Your task to perform on an android device: set default search engine in the chrome app Image 0: 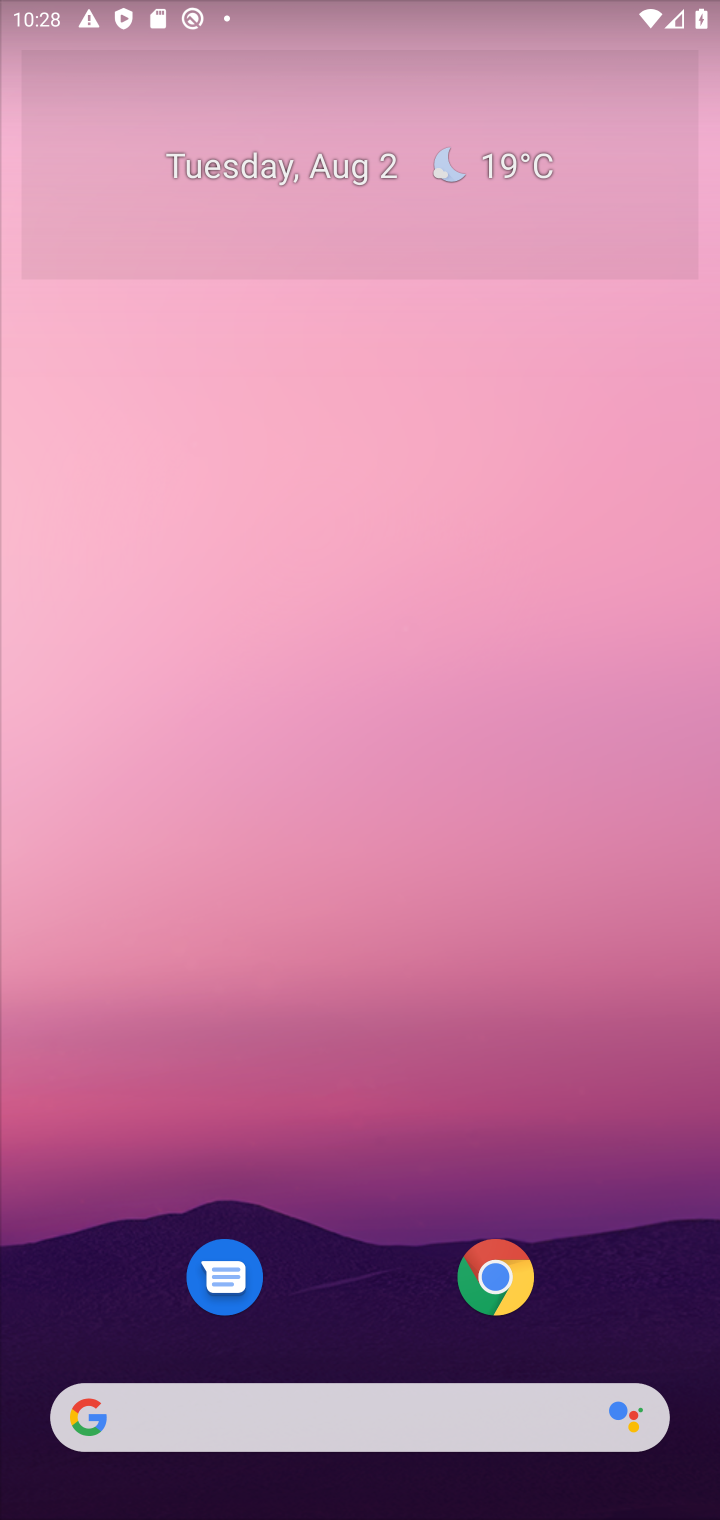
Step 0: press home button
Your task to perform on an android device: set default search engine in the chrome app Image 1: 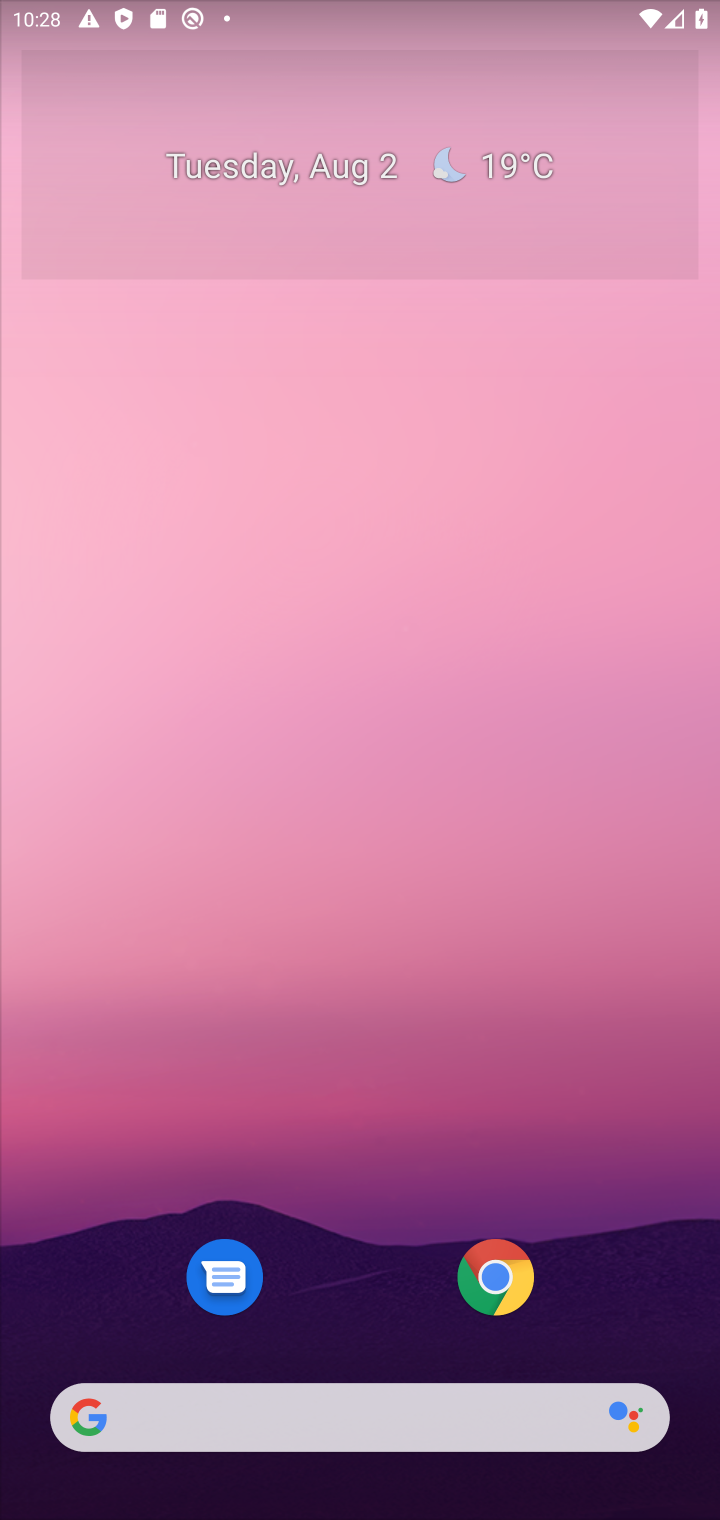
Step 1: drag from (429, 1279) to (667, 436)
Your task to perform on an android device: set default search engine in the chrome app Image 2: 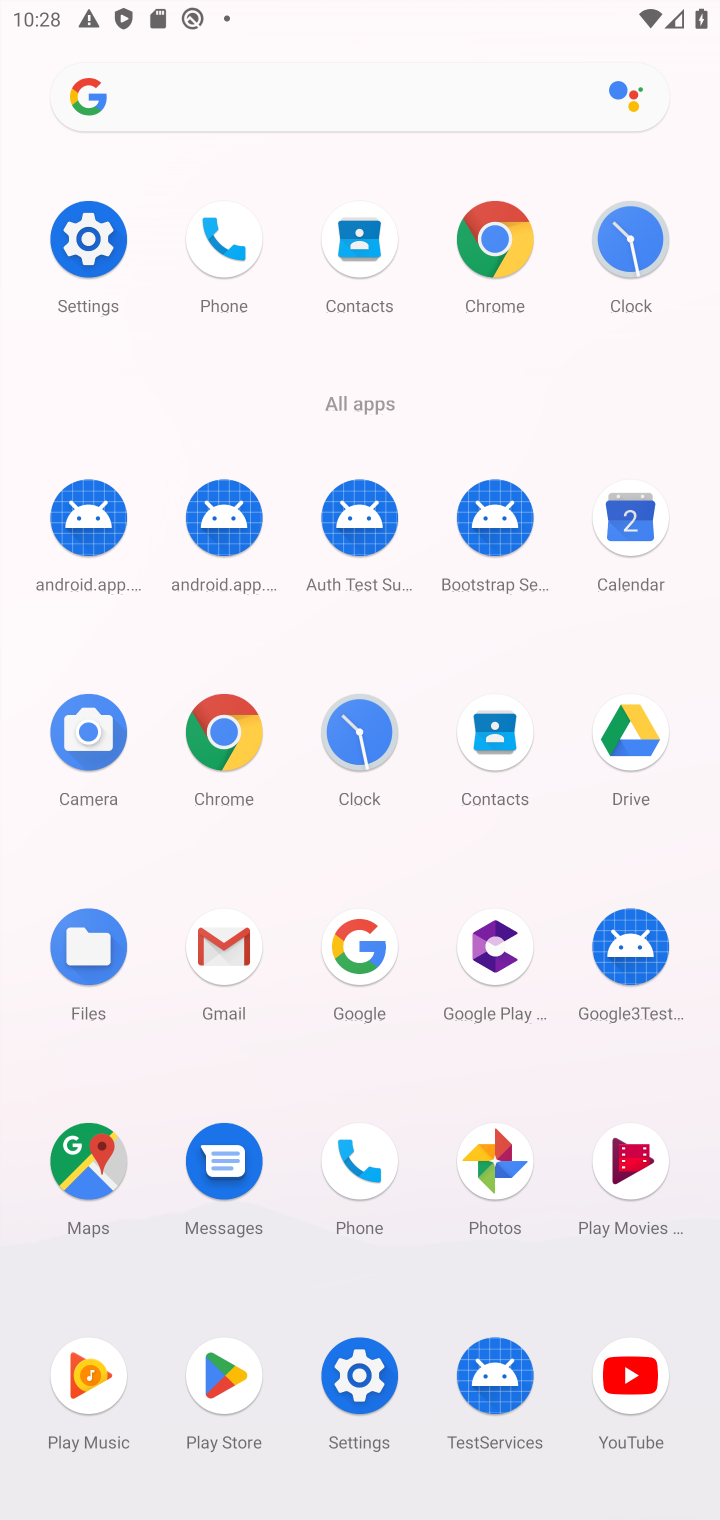
Step 2: click (494, 264)
Your task to perform on an android device: set default search engine in the chrome app Image 3: 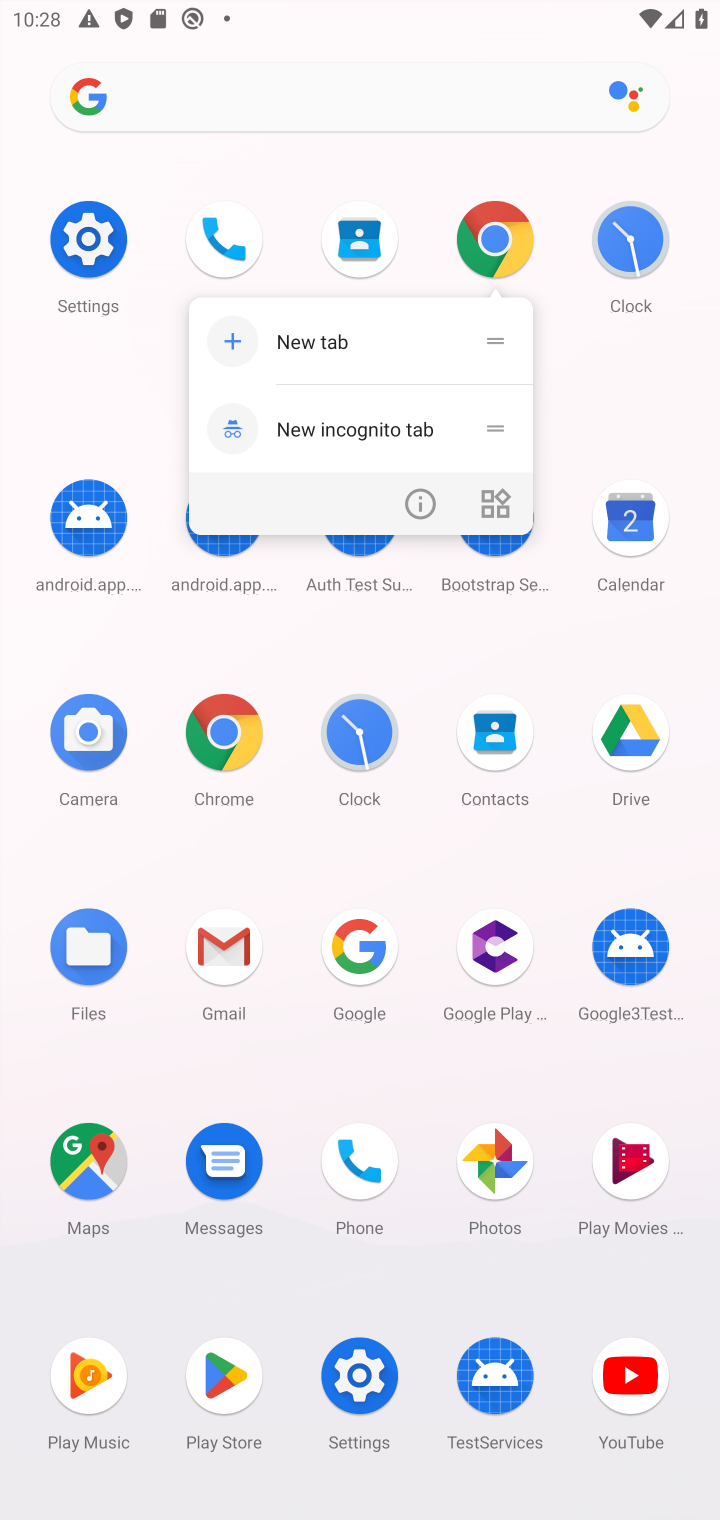
Step 3: click (488, 238)
Your task to perform on an android device: set default search engine in the chrome app Image 4: 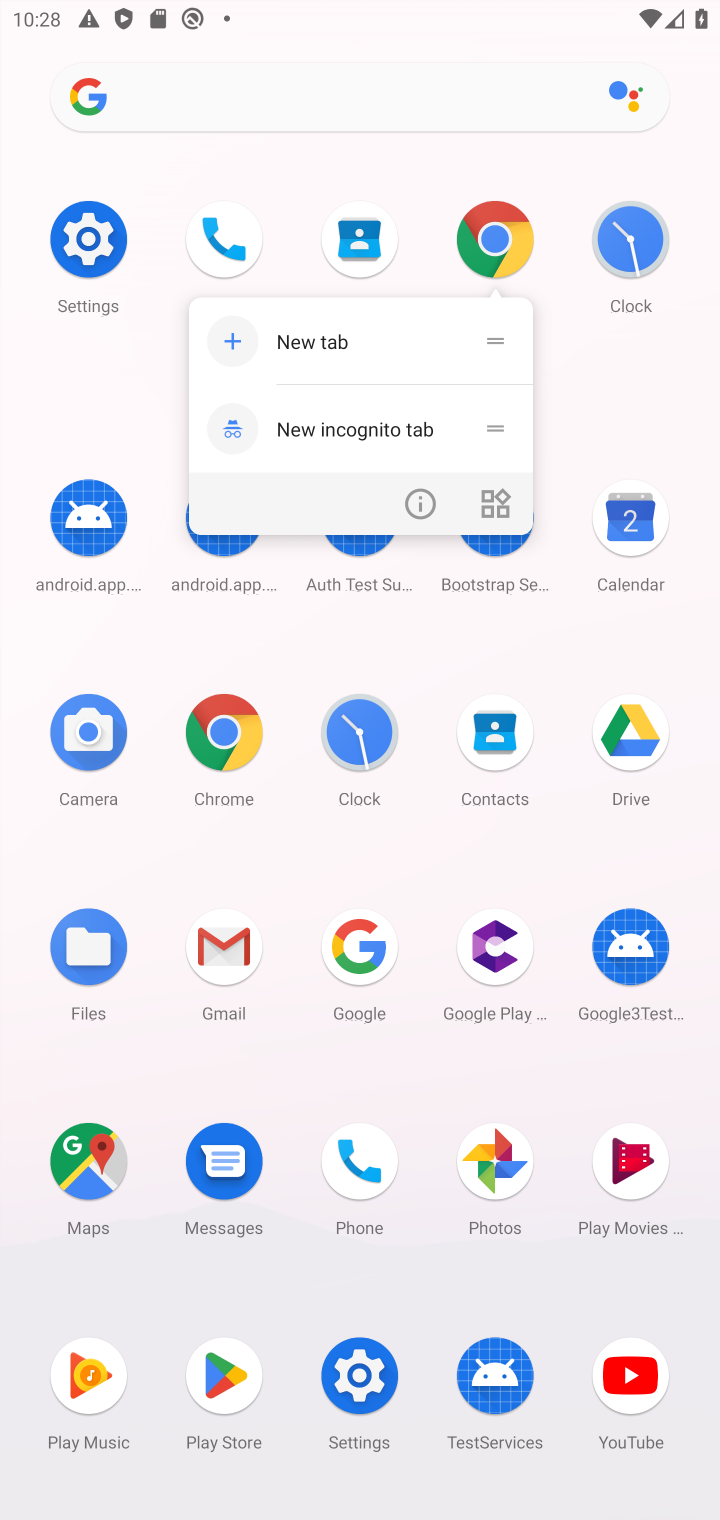
Step 4: click (505, 231)
Your task to perform on an android device: set default search engine in the chrome app Image 5: 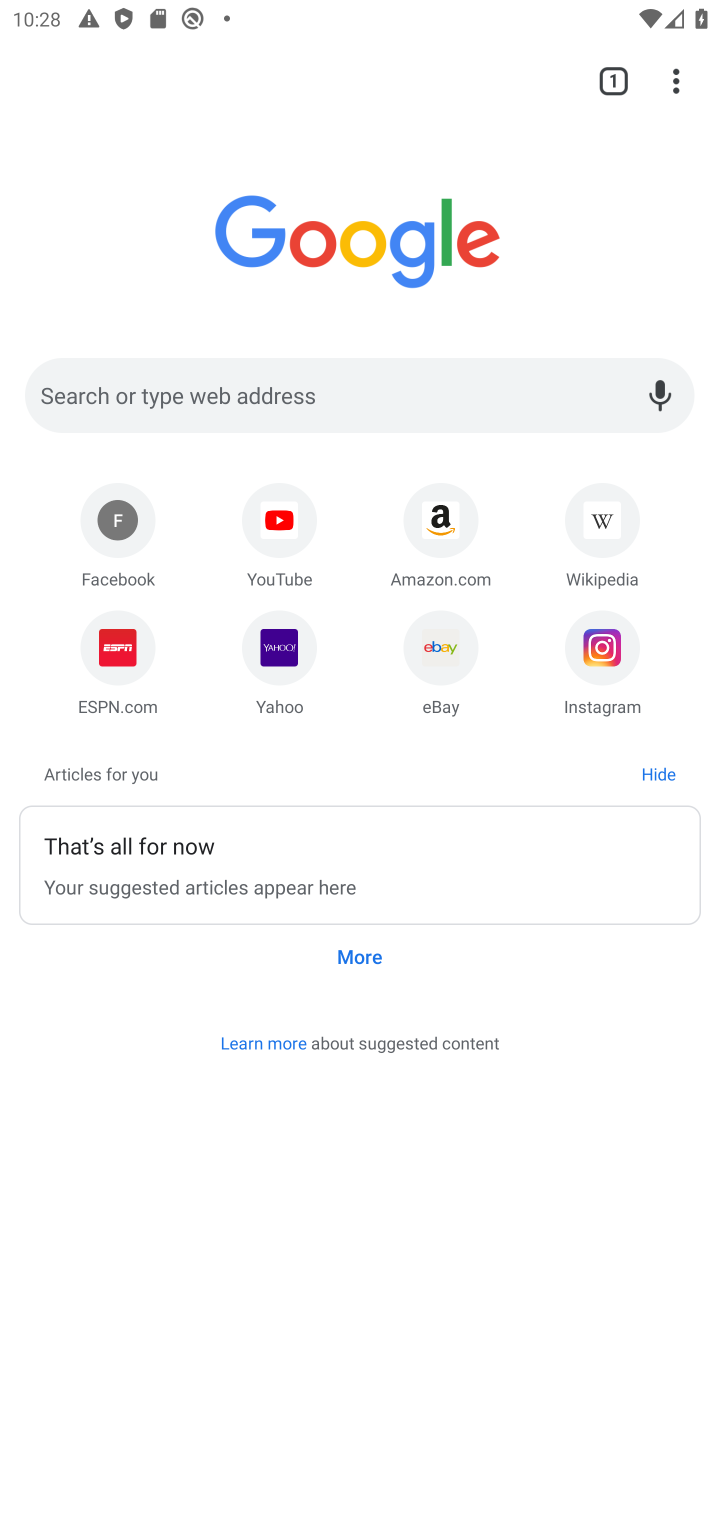
Step 5: drag from (676, 89) to (384, 690)
Your task to perform on an android device: set default search engine in the chrome app Image 6: 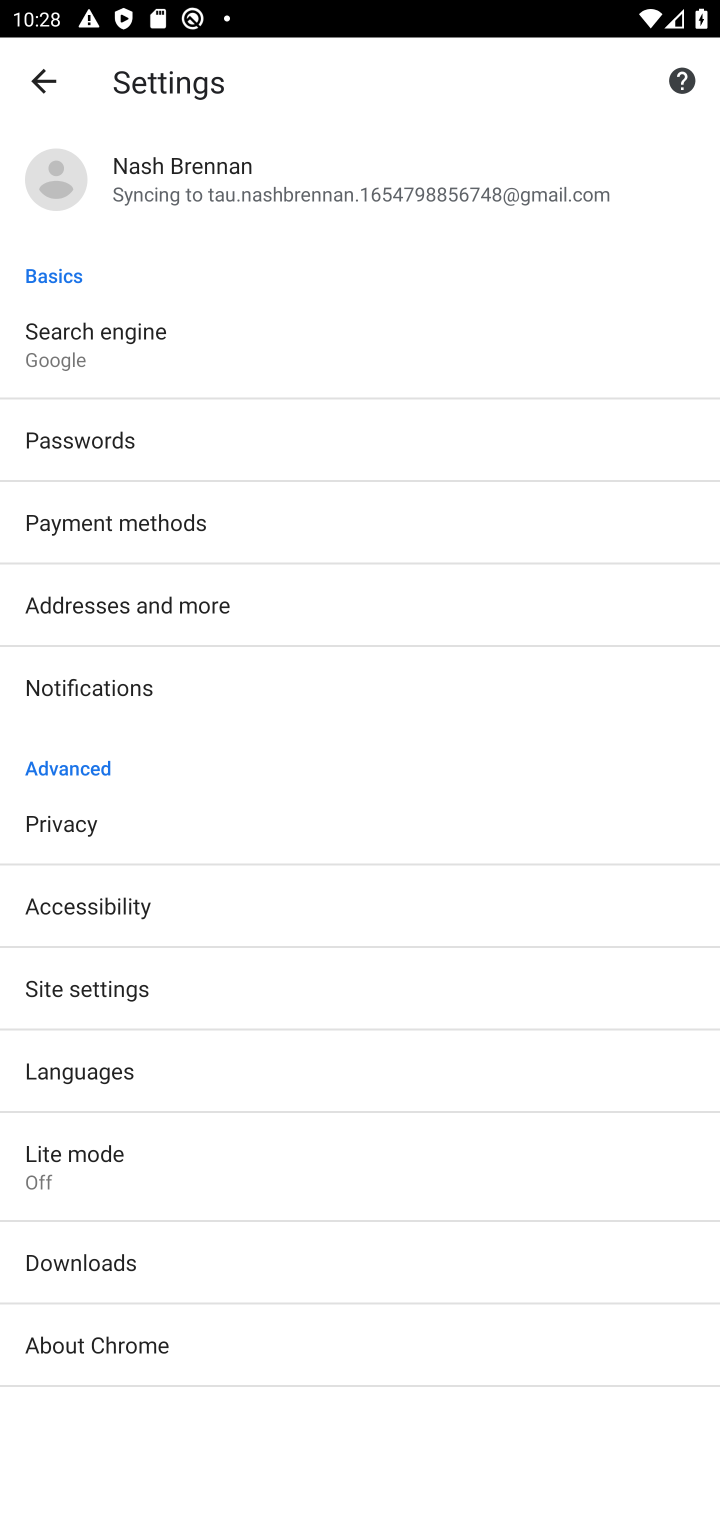
Step 6: click (73, 339)
Your task to perform on an android device: set default search engine in the chrome app Image 7: 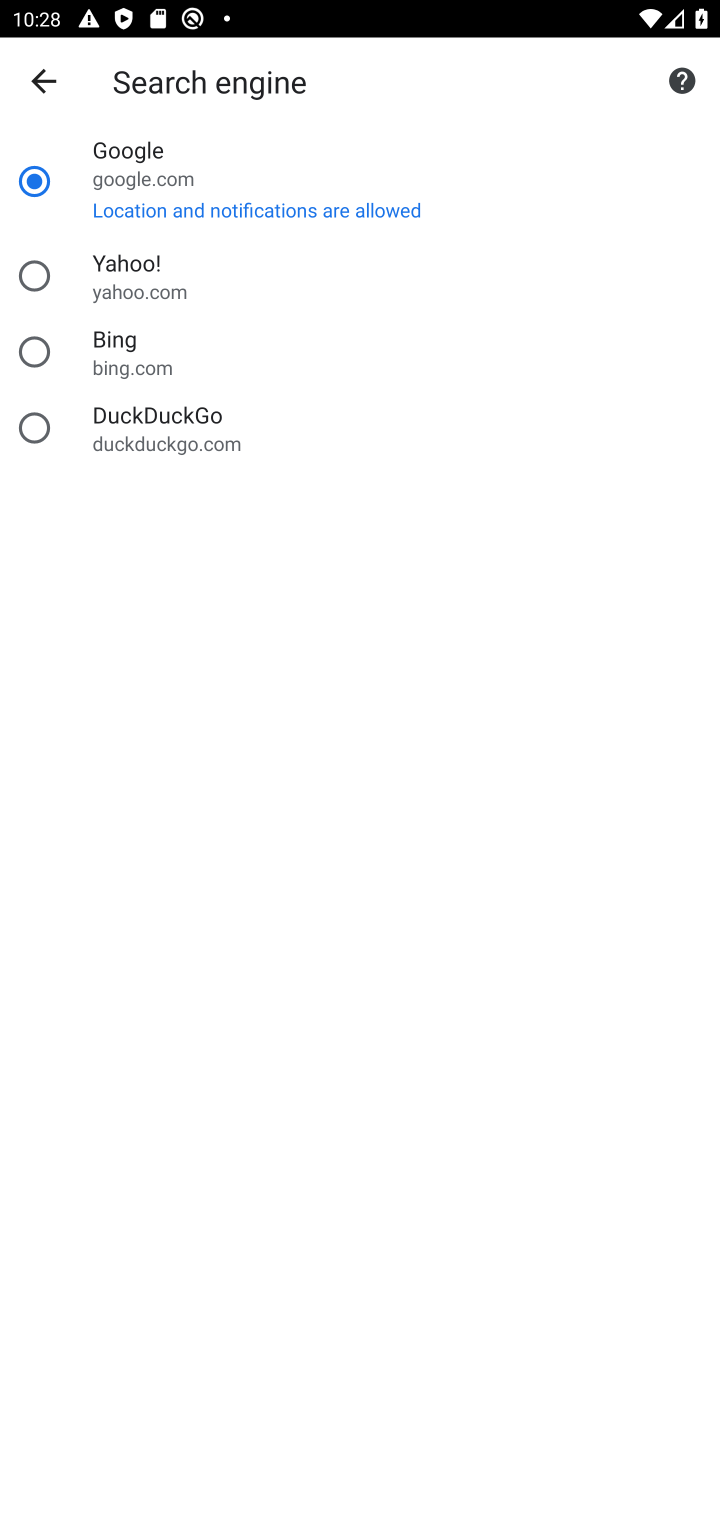
Step 7: click (28, 349)
Your task to perform on an android device: set default search engine in the chrome app Image 8: 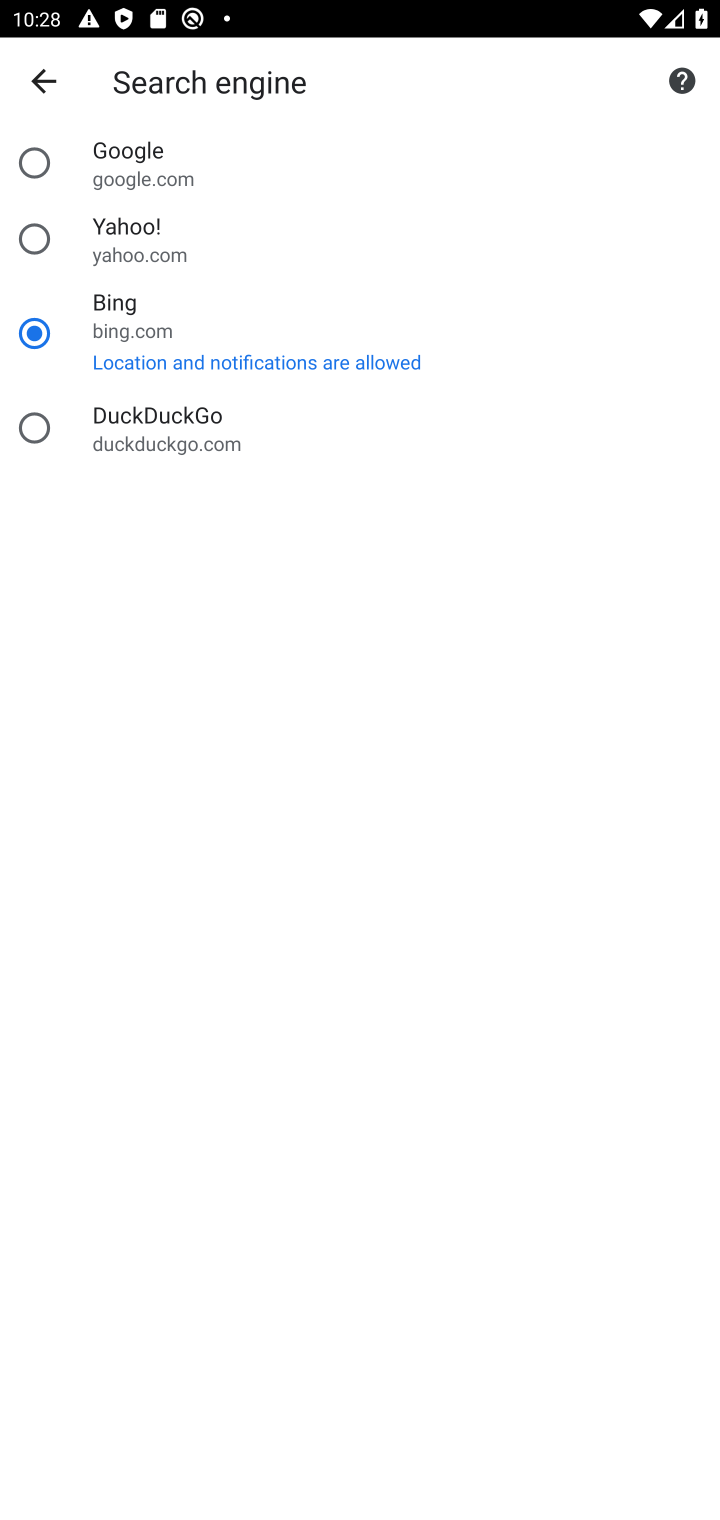
Step 8: task complete